Your task to perform on an android device: turn off airplane mode Image 0: 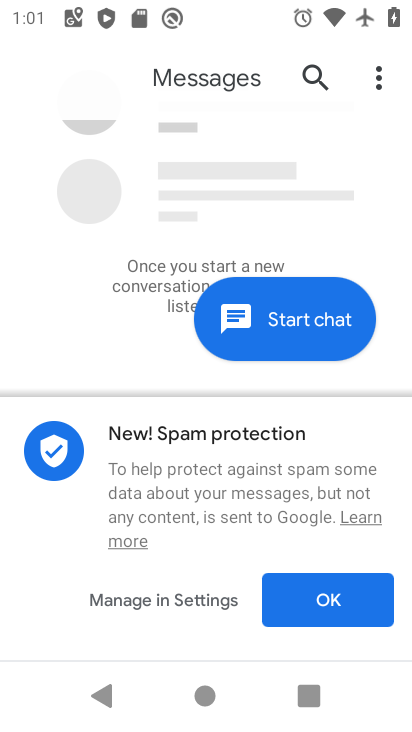
Step 0: press home button
Your task to perform on an android device: turn off airplane mode Image 1: 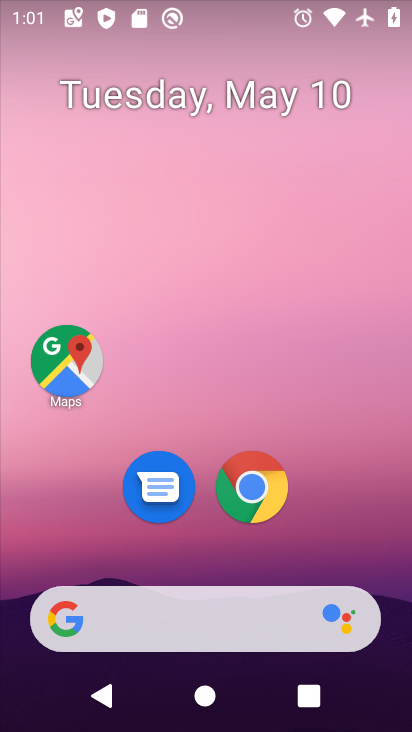
Step 1: click (345, 565)
Your task to perform on an android device: turn off airplane mode Image 2: 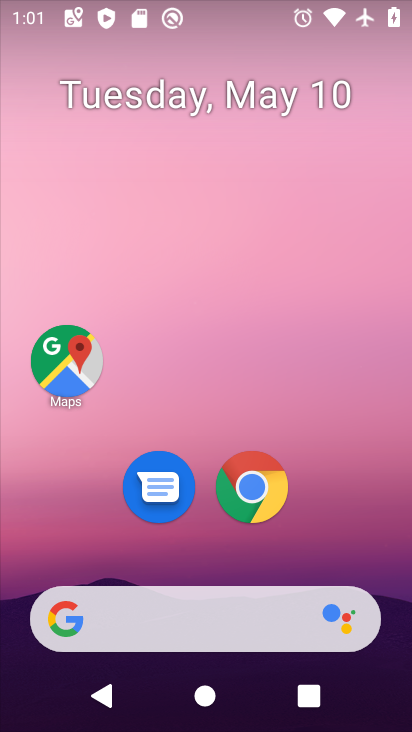
Step 2: drag from (345, 565) to (344, 185)
Your task to perform on an android device: turn off airplane mode Image 3: 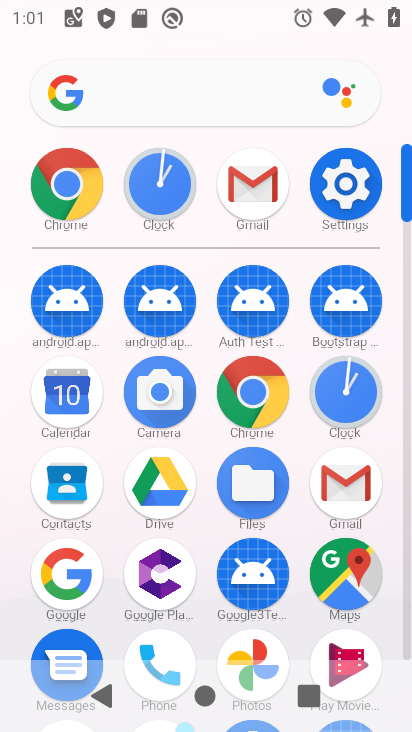
Step 3: click (330, 207)
Your task to perform on an android device: turn off airplane mode Image 4: 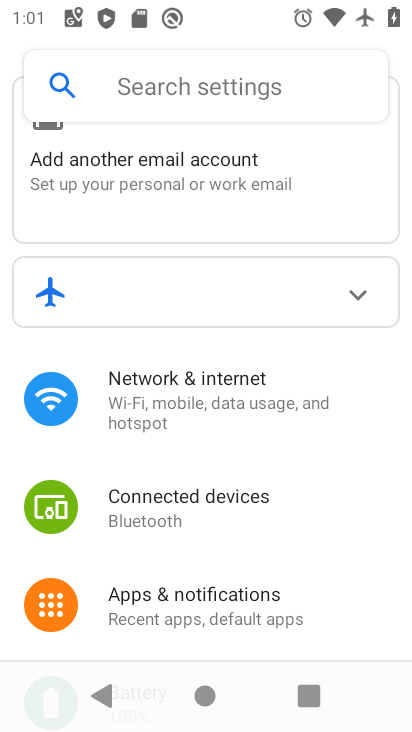
Step 4: click (220, 421)
Your task to perform on an android device: turn off airplane mode Image 5: 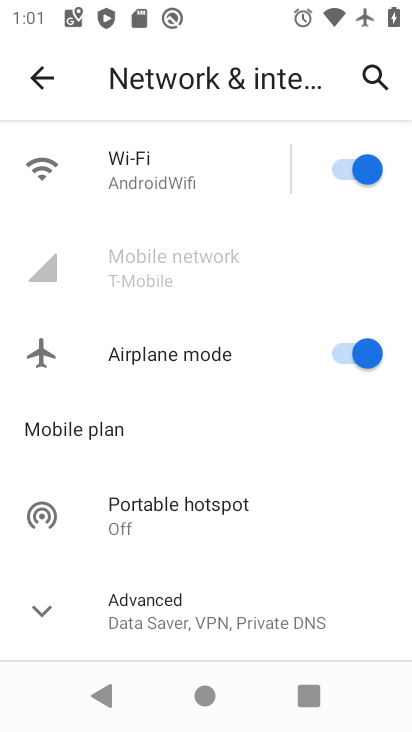
Step 5: click (334, 360)
Your task to perform on an android device: turn off airplane mode Image 6: 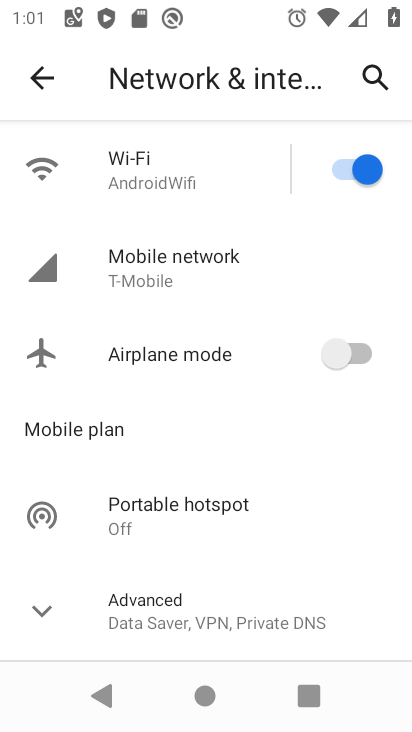
Step 6: task complete